Your task to perform on an android device: Open CNN.com Image 0: 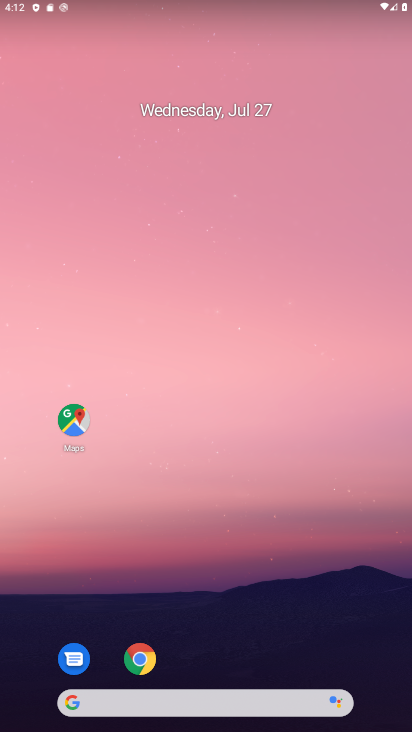
Step 0: press home button
Your task to perform on an android device: Open CNN.com Image 1: 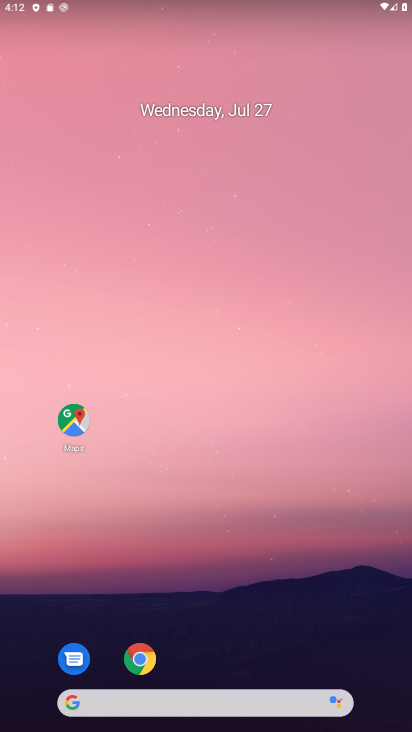
Step 1: click (403, 230)
Your task to perform on an android device: Open CNN.com Image 2: 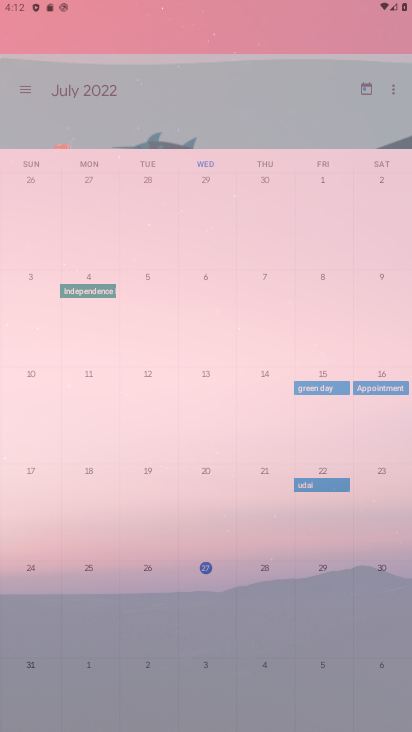
Step 2: drag from (339, 612) to (323, 135)
Your task to perform on an android device: Open CNN.com Image 3: 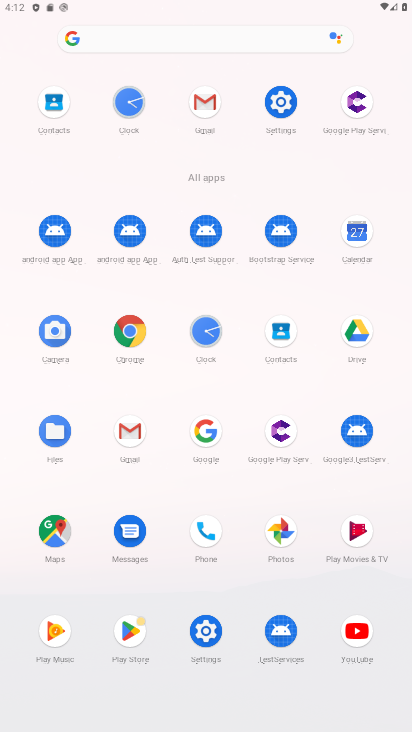
Step 3: click (148, 366)
Your task to perform on an android device: Open CNN.com Image 4: 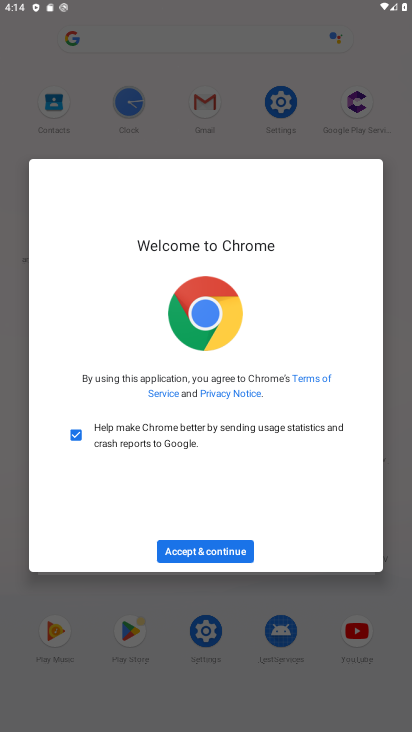
Step 4: click (159, 546)
Your task to perform on an android device: Open CNN.com Image 5: 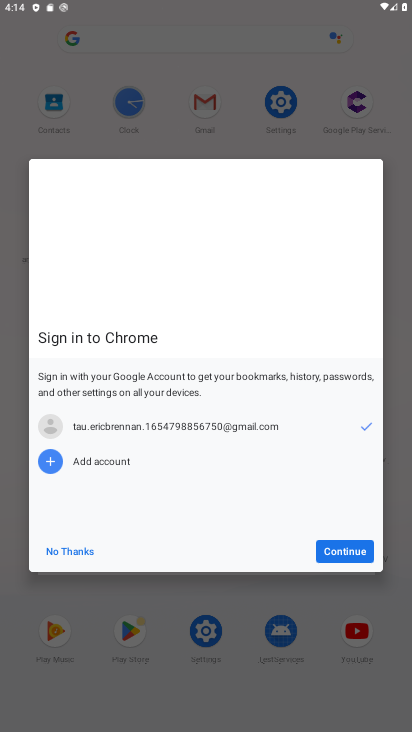
Step 5: click (277, 570)
Your task to perform on an android device: Open CNN.com Image 6: 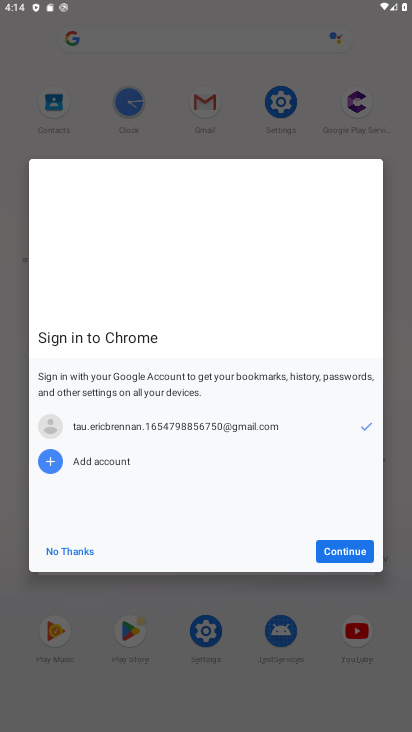
Step 6: click (367, 543)
Your task to perform on an android device: Open CNN.com Image 7: 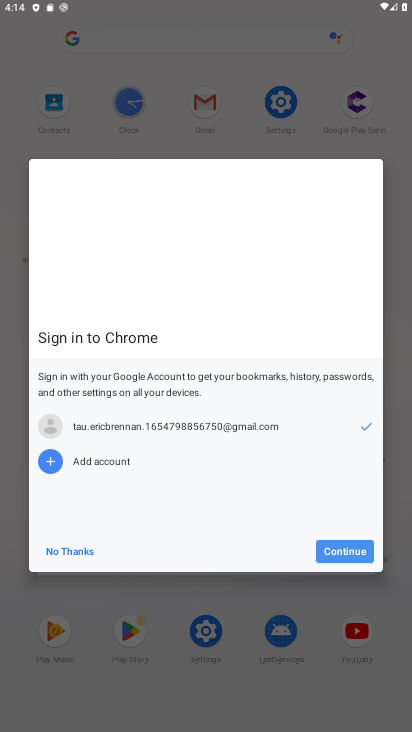
Step 7: click (367, 543)
Your task to perform on an android device: Open CNN.com Image 8: 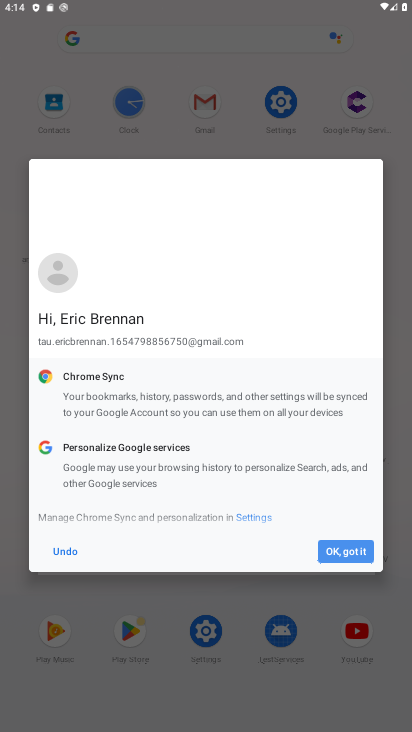
Step 8: click (367, 543)
Your task to perform on an android device: Open CNN.com Image 9: 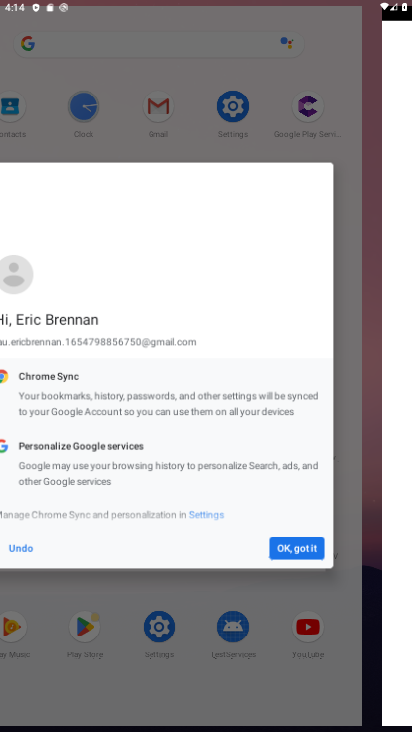
Step 9: click (367, 543)
Your task to perform on an android device: Open CNN.com Image 10: 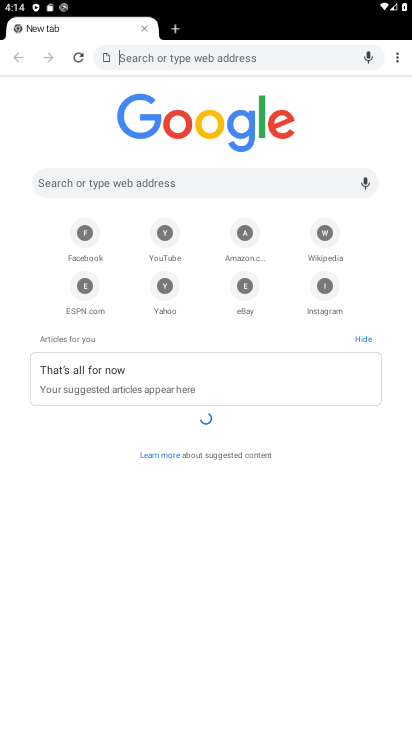
Step 10: click (176, 181)
Your task to perform on an android device: Open CNN.com Image 11: 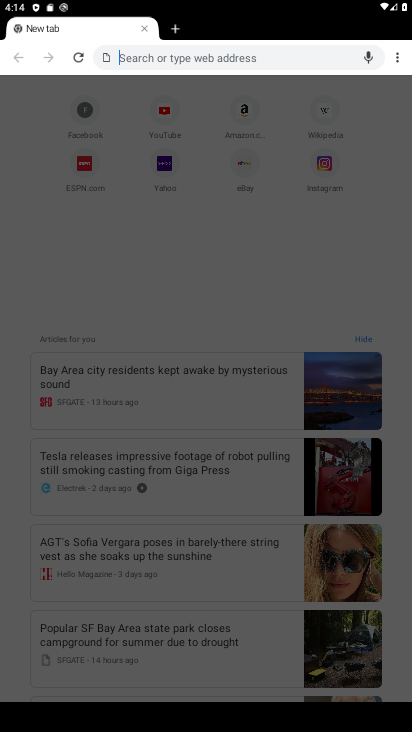
Step 11: type " CNN.com"
Your task to perform on an android device: Open CNN.com Image 12: 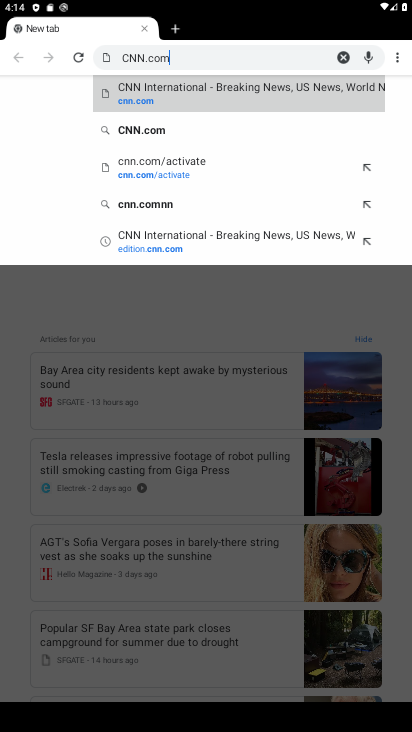
Step 12: type ""
Your task to perform on an android device: Open CNN.com Image 13: 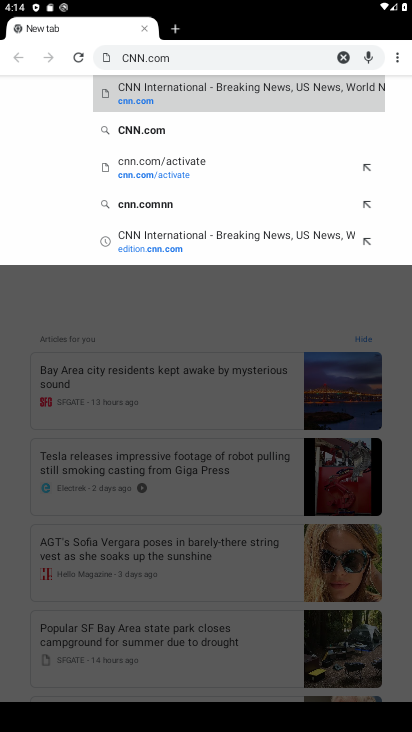
Step 13: click (210, 82)
Your task to perform on an android device: Open CNN.com Image 14: 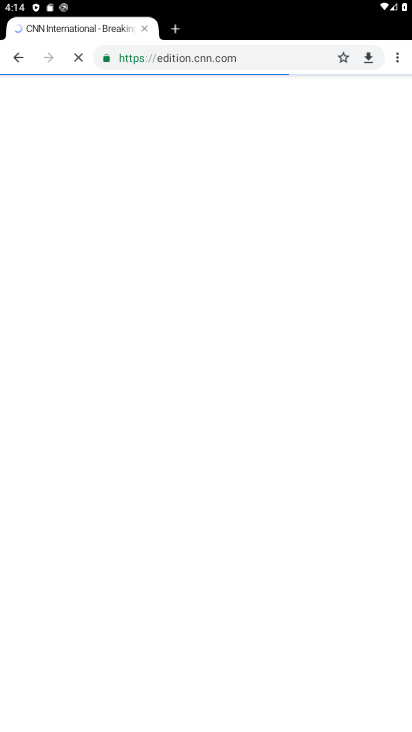
Step 14: task complete